Your task to perform on an android device: Check the news Image 0: 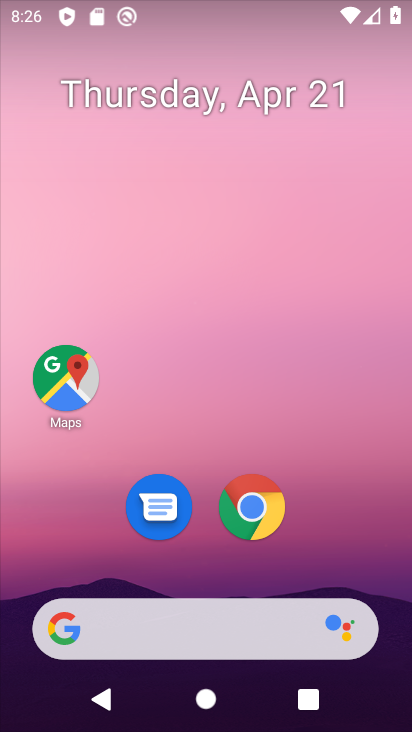
Step 0: drag from (344, 530) to (351, 109)
Your task to perform on an android device: Check the news Image 1: 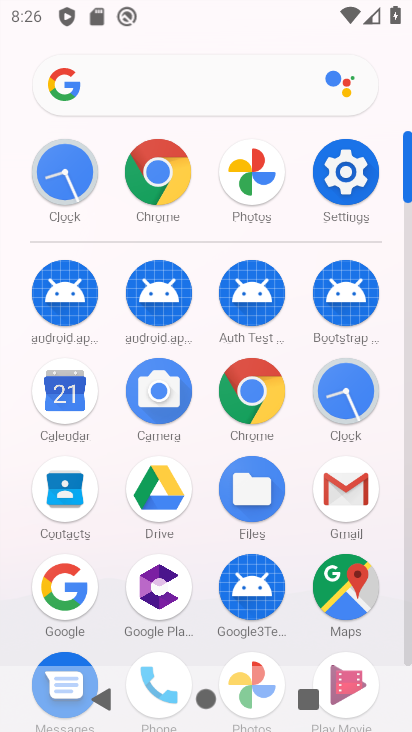
Step 1: click (268, 399)
Your task to perform on an android device: Check the news Image 2: 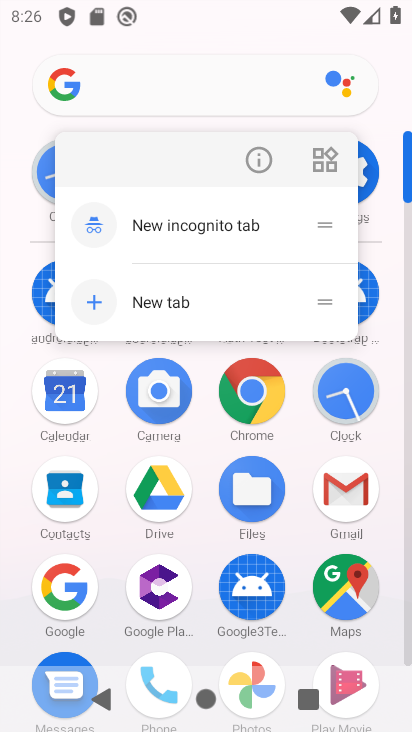
Step 2: click (271, 405)
Your task to perform on an android device: Check the news Image 3: 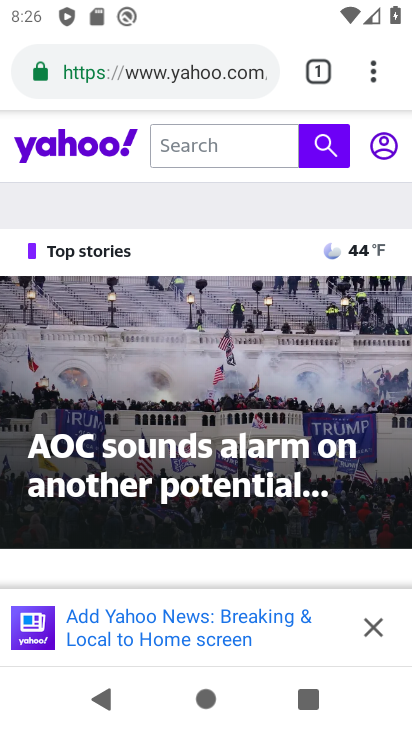
Step 3: click (232, 68)
Your task to perform on an android device: Check the news Image 4: 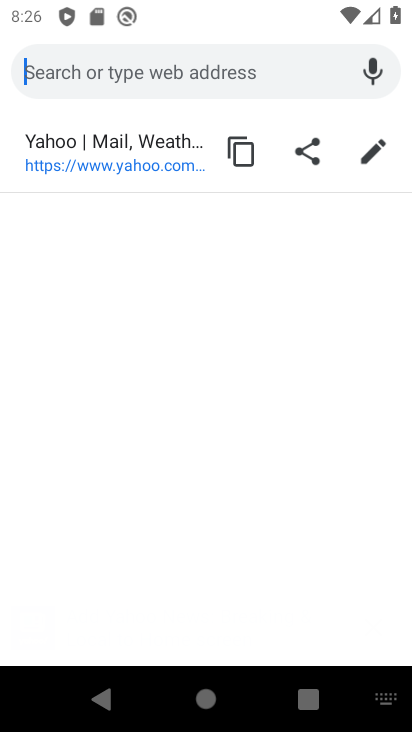
Step 4: type "news"
Your task to perform on an android device: Check the news Image 5: 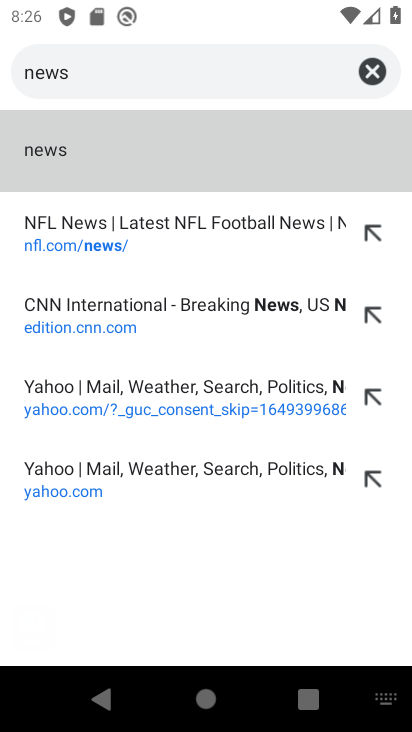
Step 5: click (72, 144)
Your task to perform on an android device: Check the news Image 6: 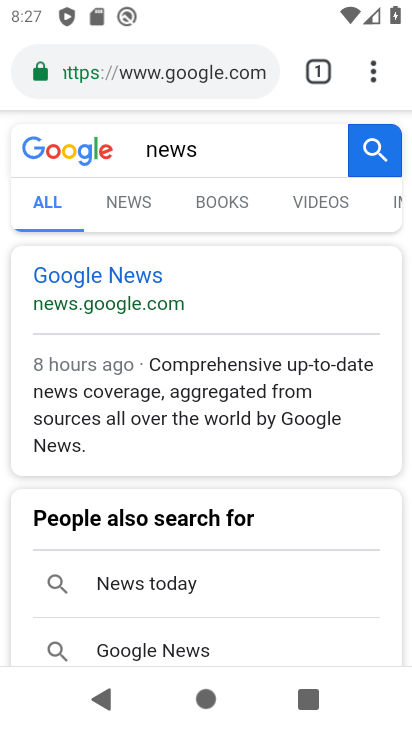
Step 6: drag from (230, 616) to (307, 301)
Your task to perform on an android device: Check the news Image 7: 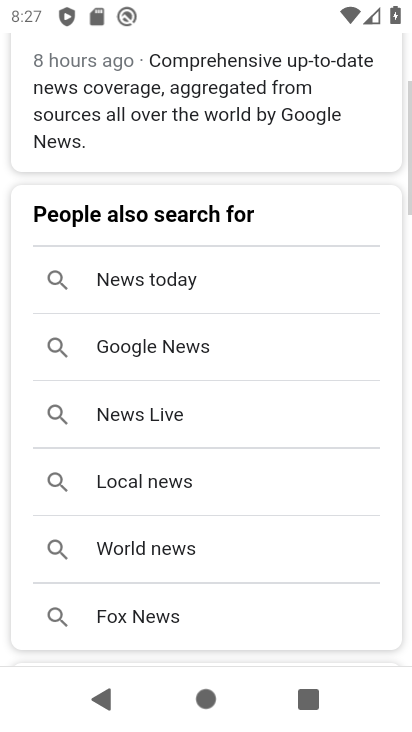
Step 7: drag from (275, 588) to (294, 318)
Your task to perform on an android device: Check the news Image 8: 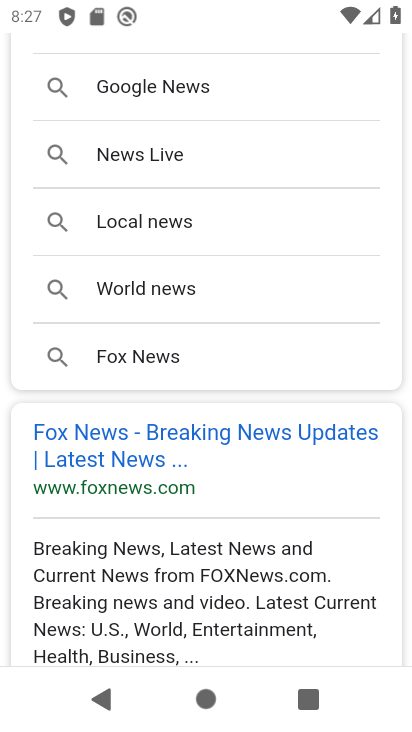
Step 8: click (294, 427)
Your task to perform on an android device: Check the news Image 9: 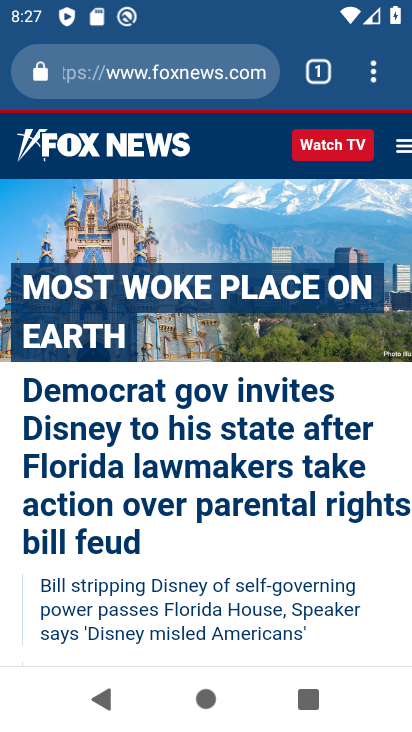
Step 9: task complete